Your task to perform on an android device: Go to Yahoo.com Image 0: 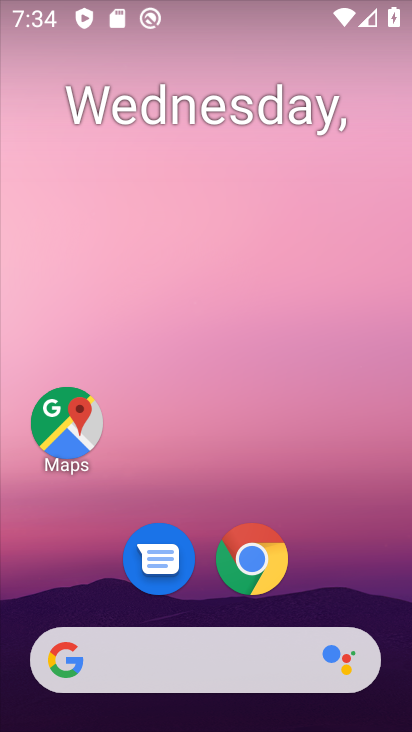
Step 0: click (261, 568)
Your task to perform on an android device: Go to Yahoo.com Image 1: 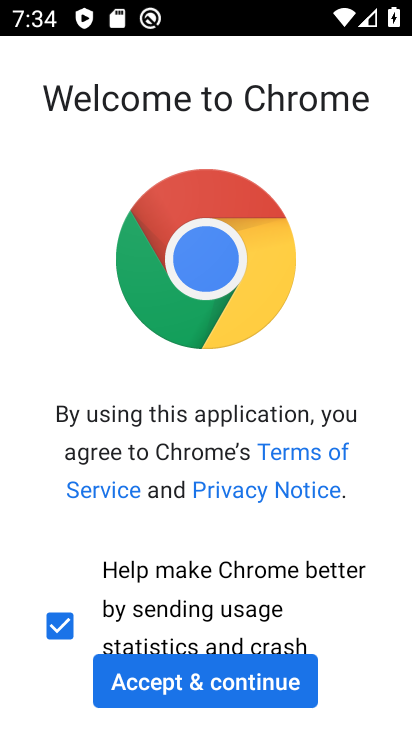
Step 1: click (208, 685)
Your task to perform on an android device: Go to Yahoo.com Image 2: 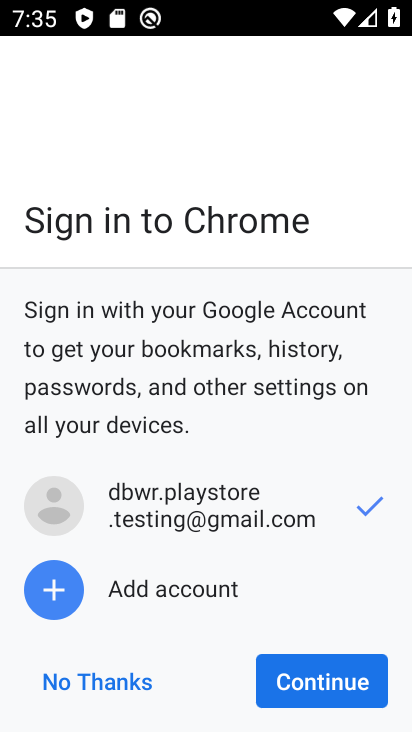
Step 2: click (117, 682)
Your task to perform on an android device: Go to Yahoo.com Image 3: 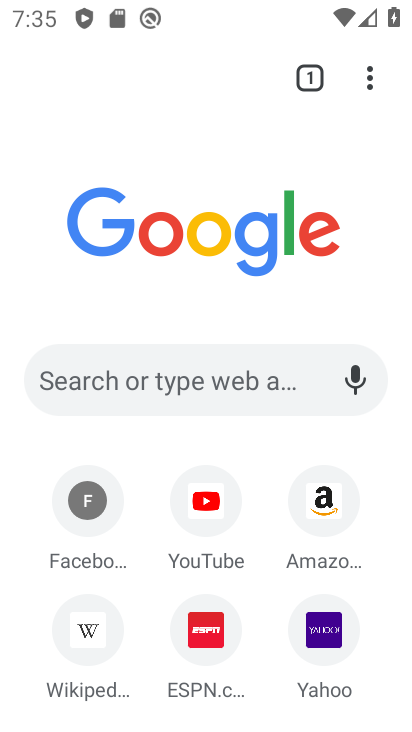
Step 3: click (321, 648)
Your task to perform on an android device: Go to Yahoo.com Image 4: 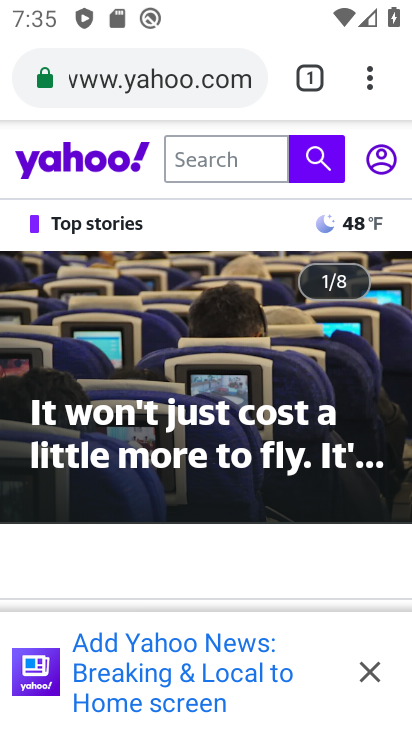
Step 4: task complete